Your task to perform on an android device: Show me popular videos on Youtube Image 0: 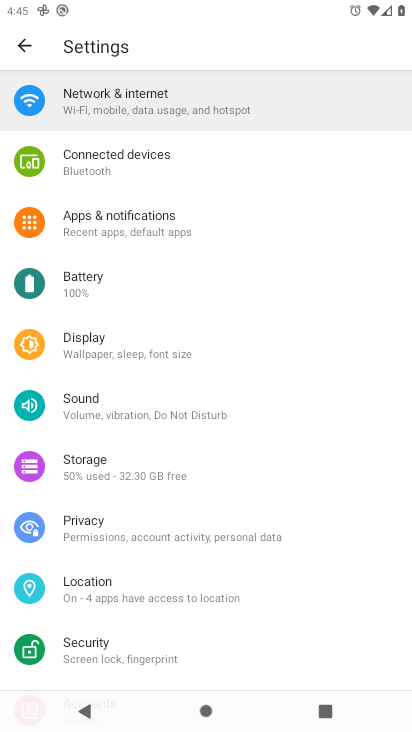
Step 0: press home button
Your task to perform on an android device: Show me popular videos on Youtube Image 1: 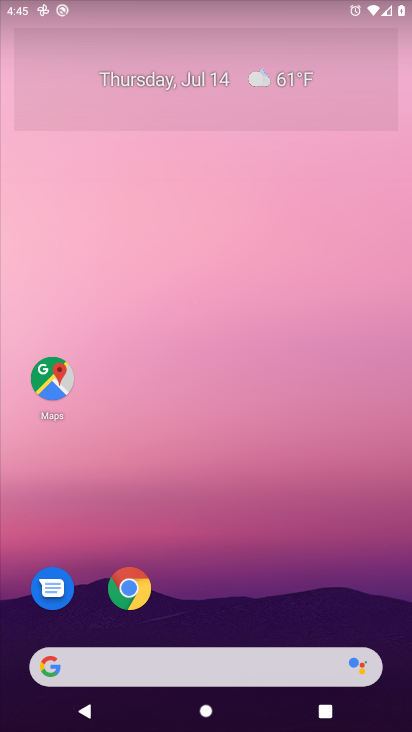
Step 1: drag from (258, 612) to (309, 43)
Your task to perform on an android device: Show me popular videos on Youtube Image 2: 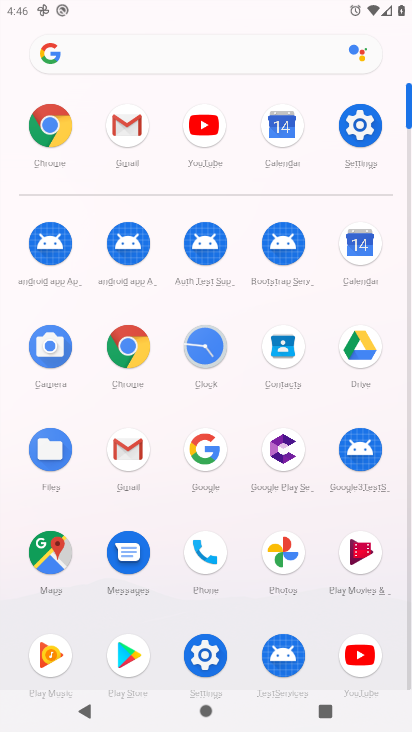
Step 2: click (353, 664)
Your task to perform on an android device: Show me popular videos on Youtube Image 3: 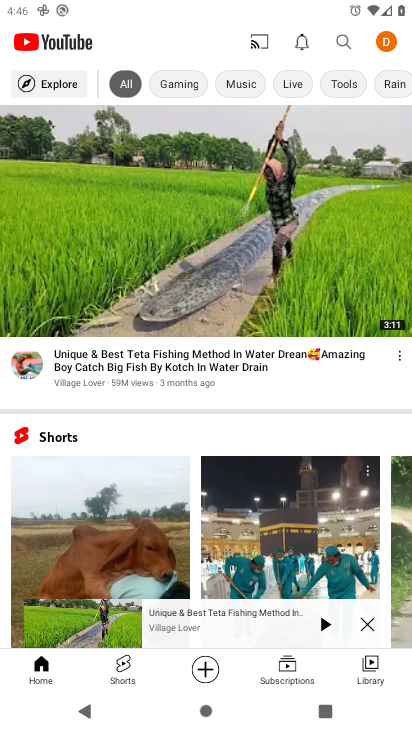
Step 3: click (44, 75)
Your task to perform on an android device: Show me popular videos on Youtube Image 4: 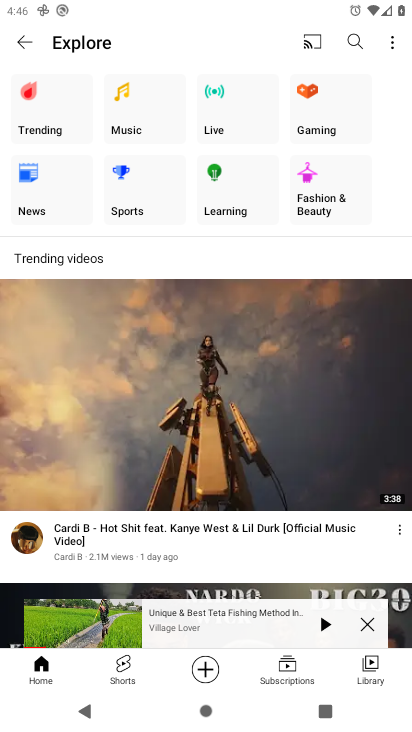
Step 4: click (53, 123)
Your task to perform on an android device: Show me popular videos on Youtube Image 5: 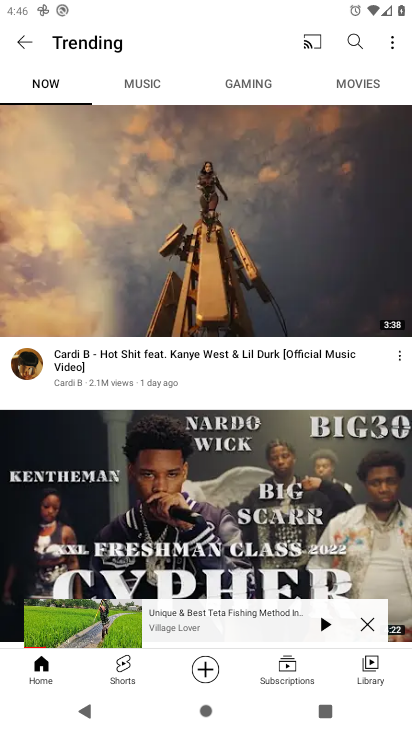
Step 5: task complete